Your task to perform on an android device: open wifi settings Image 0: 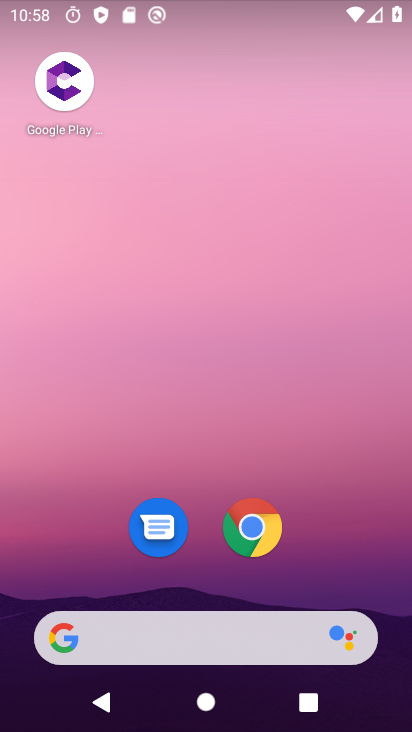
Step 0: drag from (259, 431) to (244, 86)
Your task to perform on an android device: open wifi settings Image 1: 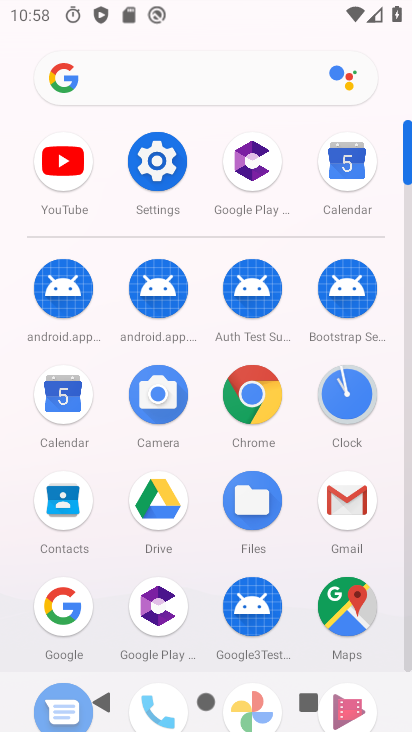
Step 1: click (152, 171)
Your task to perform on an android device: open wifi settings Image 2: 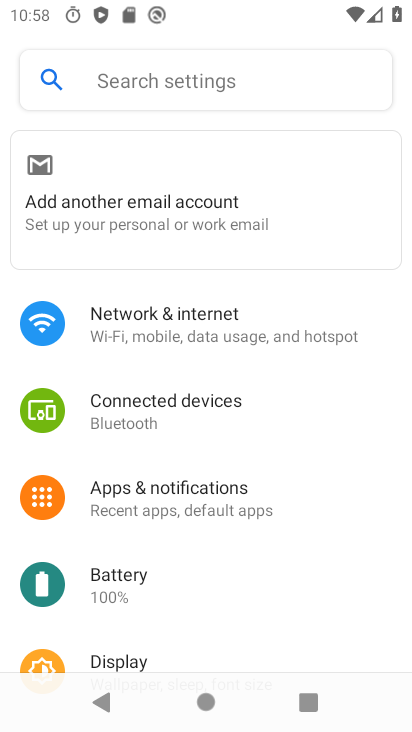
Step 2: click (218, 317)
Your task to perform on an android device: open wifi settings Image 3: 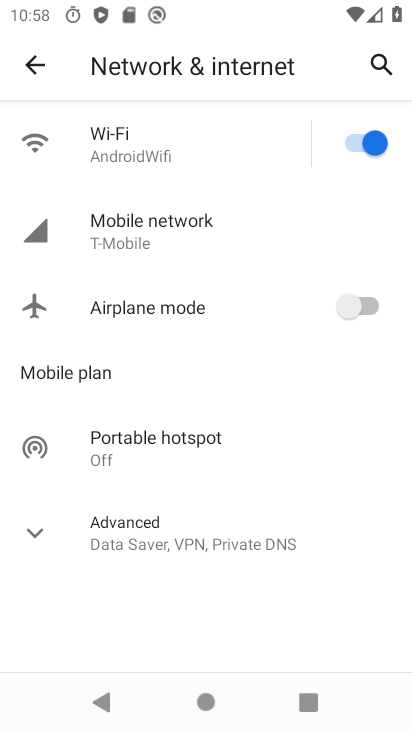
Step 3: click (189, 121)
Your task to perform on an android device: open wifi settings Image 4: 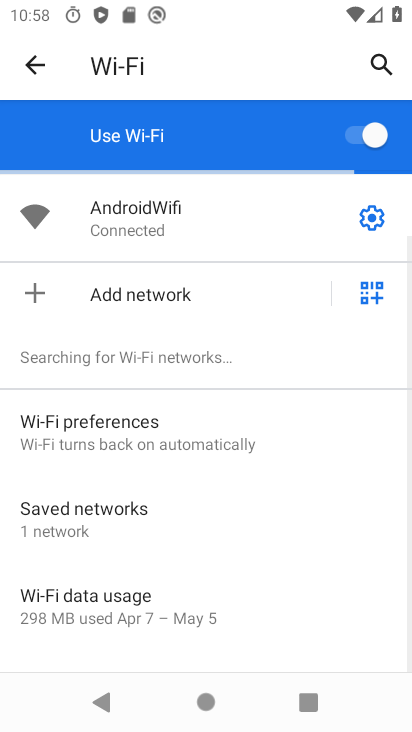
Step 4: click (379, 215)
Your task to perform on an android device: open wifi settings Image 5: 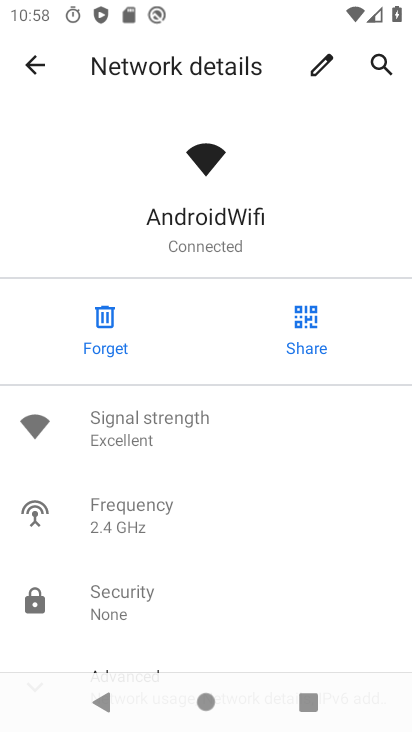
Step 5: task complete